Your task to perform on an android device: set the timer Image 0: 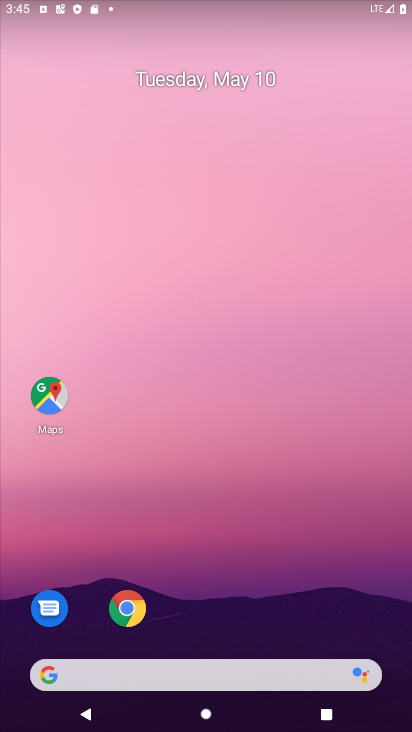
Step 0: drag from (385, 623) to (280, 55)
Your task to perform on an android device: set the timer Image 1: 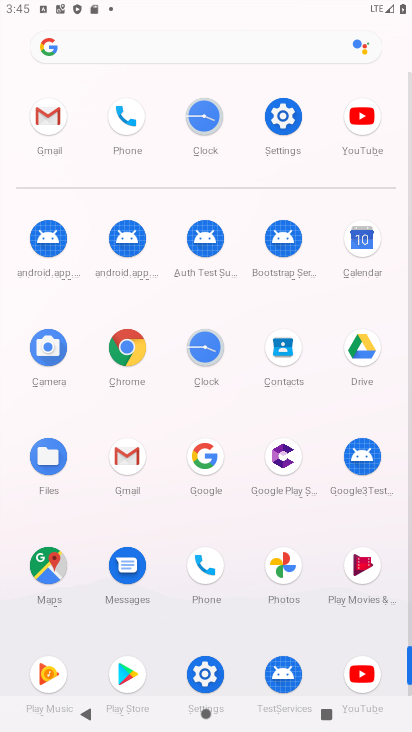
Step 1: click (201, 345)
Your task to perform on an android device: set the timer Image 2: 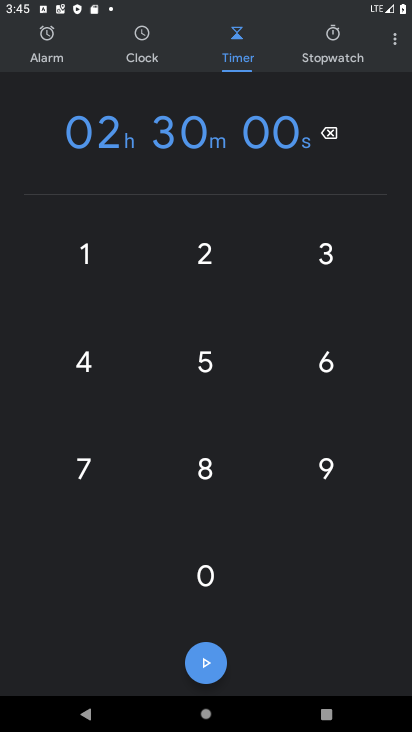
Step 2: task complete